Your task to perform on an android device: What is the recent news? Image 0: 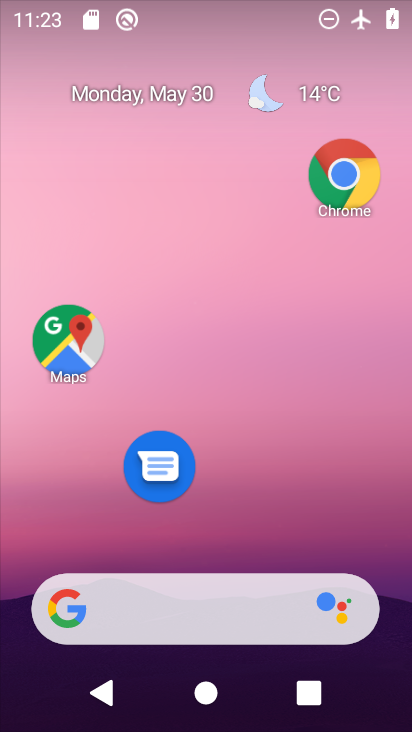
Step 0: click (183, 609)
Your task to perform on an android device: What is the recent news? Image 1: 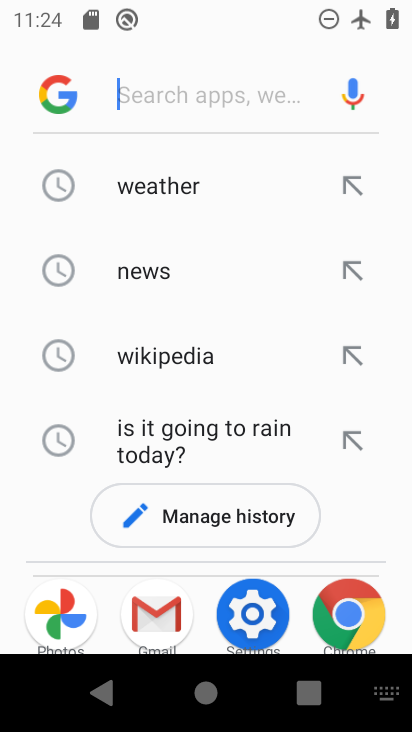
Step 1: type "recent news"
Your task to perform on an android device: What is the recent news? Image 2: 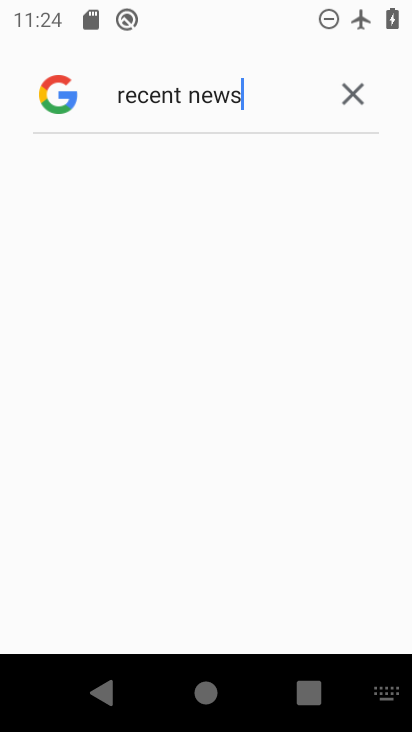
Step 2: drag from (258, 0) to (222, 730)
Your task to perform on an android device: What is the recent news? Image 3: 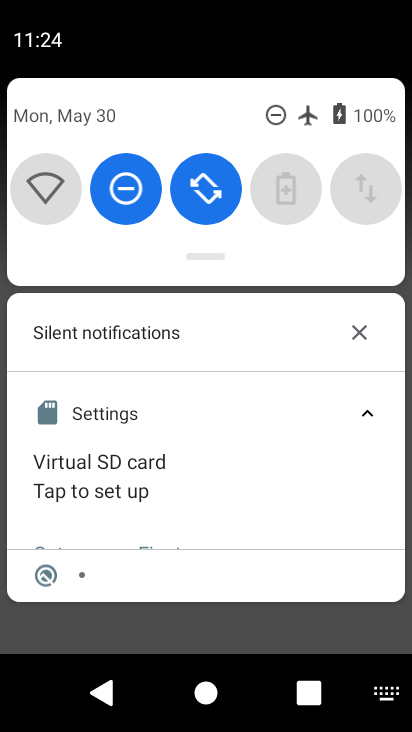
Step 3: drag from (284, 236) to (263, 703)
Your task to perform on an android device: What is the recent news? Image 4: 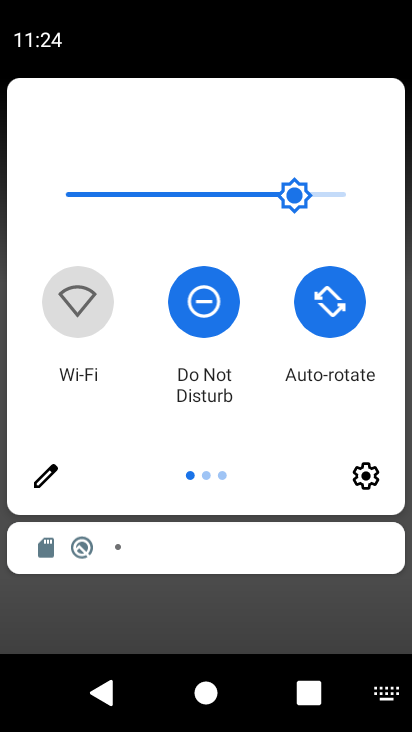
Step 4: drag from (377, 393) to (42, 373)
Your task to perform on an android device: What is the recent news? Image 5: 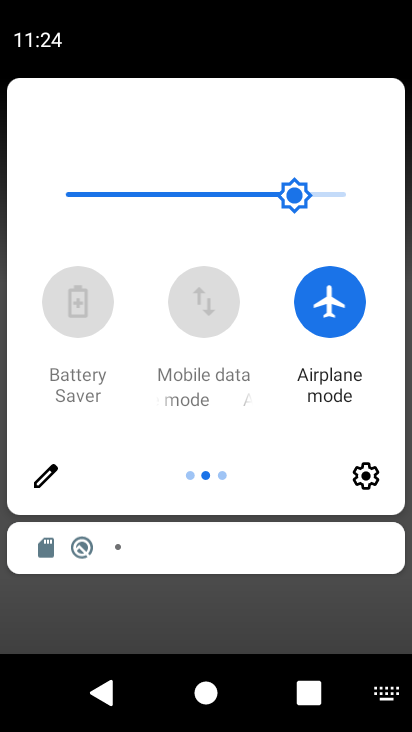
Step 5: click (352, 369)
Your task to perform on an android device: What is the recent news? Image 6: 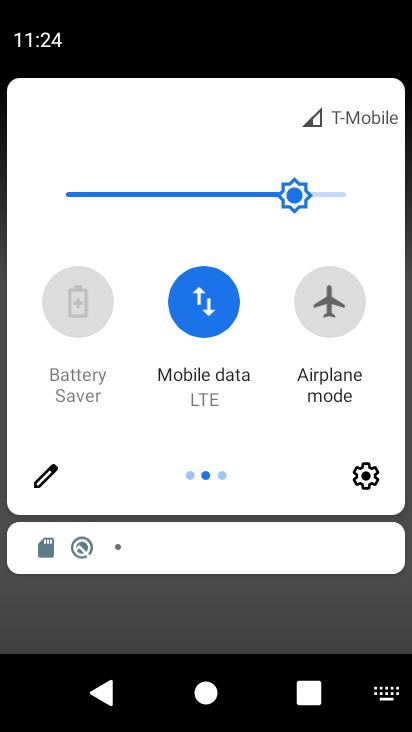
Step 6: press back button
Your task to perform on an android device: What is the recent news? Image 7: 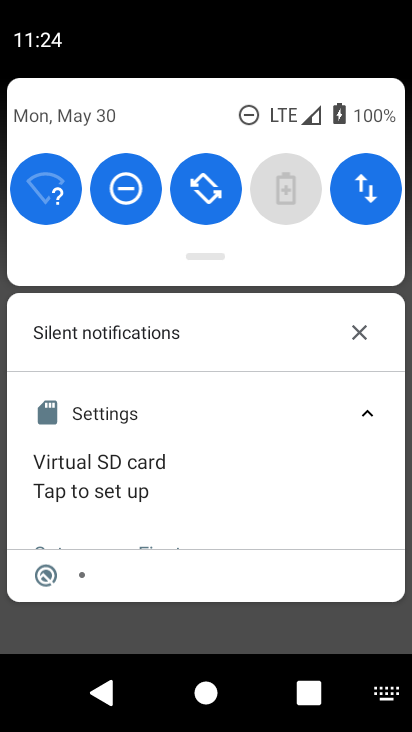
Step 7: drag from (266, 665) to (296, 127)
Your task to perform on an android device: What is the recent news? Image 8: 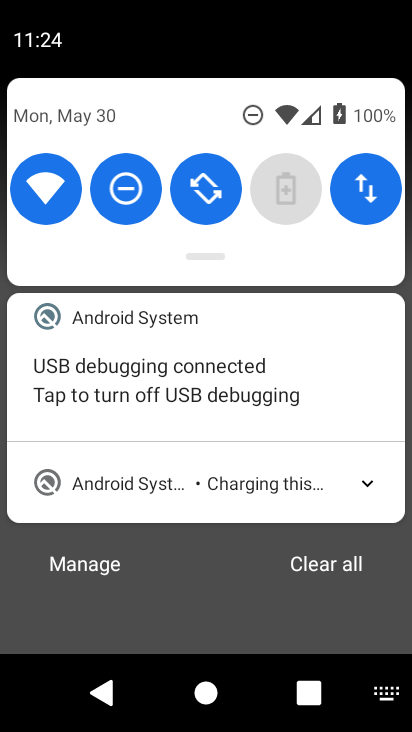
Step 8: drag from (206, 694) to (258, 387)
Your task to perform on an android device: What is the recent news? Image 9: 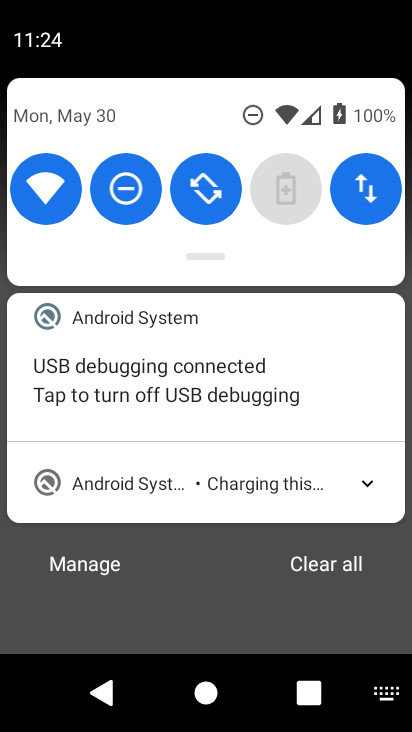
Step 9: drag from (284, 662) to (277, 3)
Your task to perform on an android device: What is the recent news? Image 10: 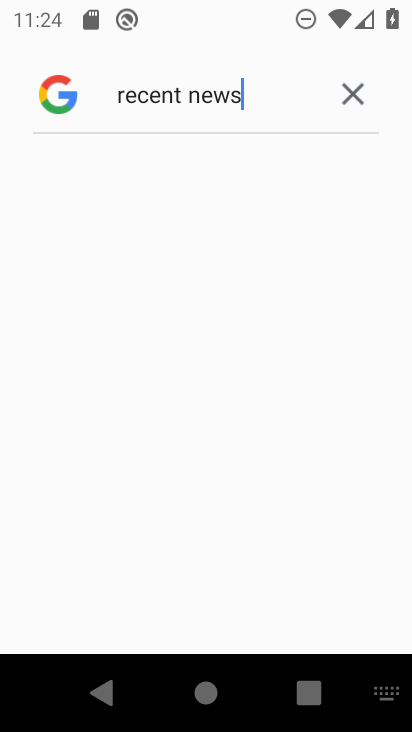
Step 10: click (265, 88)
Your task to perform on an android device: What is the recent news? Image 11: 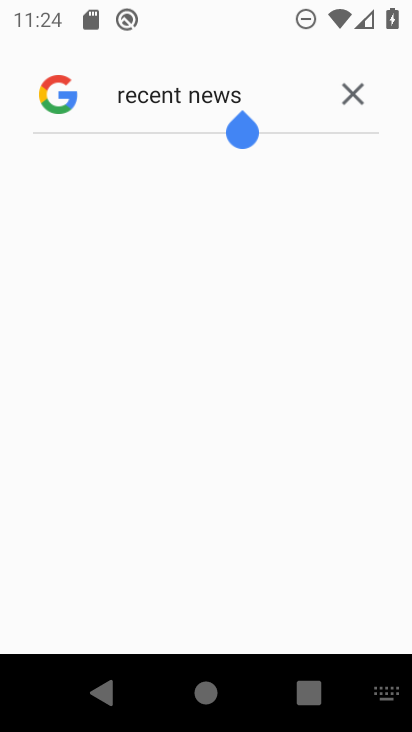
Step 11: click (357, 93)
Your task to perform on an android device: What is the recent news? Image 12: 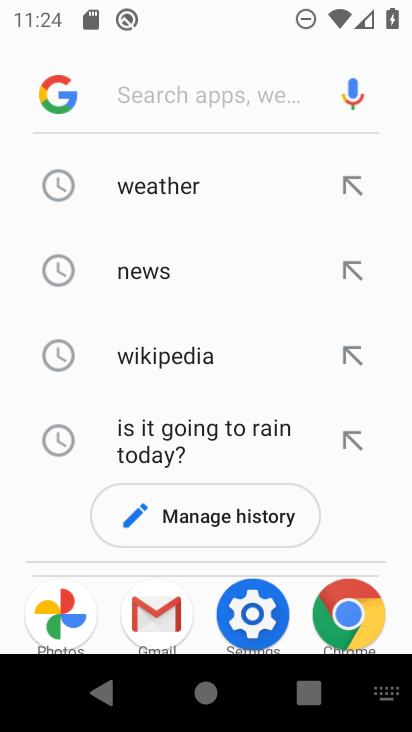
Step 12: type "recent news"
Your task to perform on an android device: What is the recent news? Image 13: 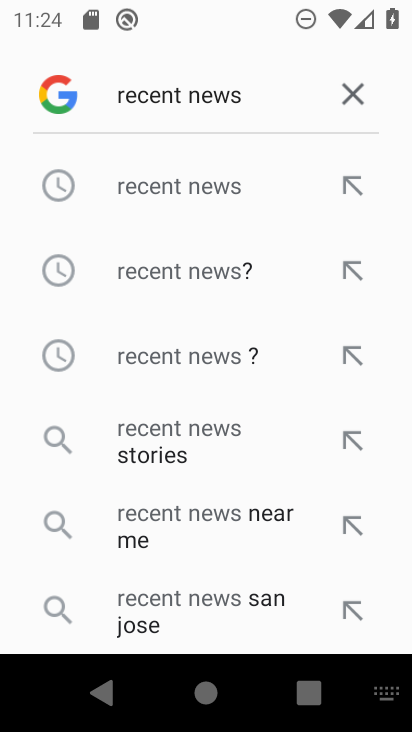
Step 13: click (140, 209)
Your task to perform on an android device: What is the recent news? Image 14: 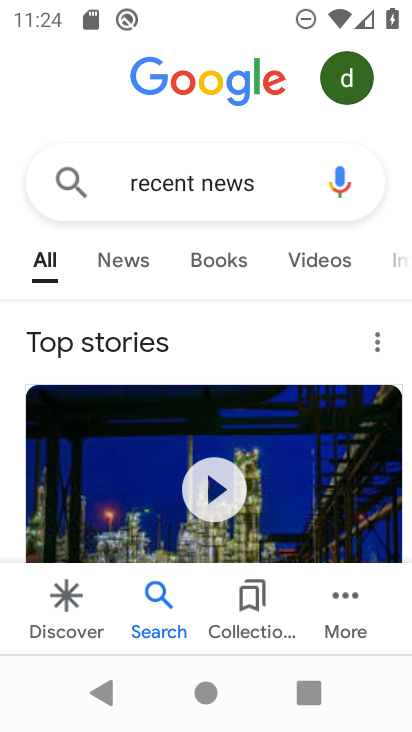
Step 14: task complete